Your task to perform on an android device: change the clock display to show seconds Image 0: 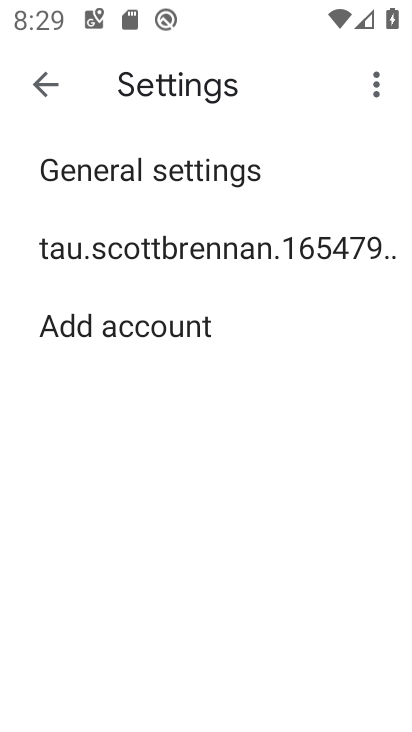
Step 0: press home button
Your task to perform on an android device: change the clock display to show seconds Image 1: 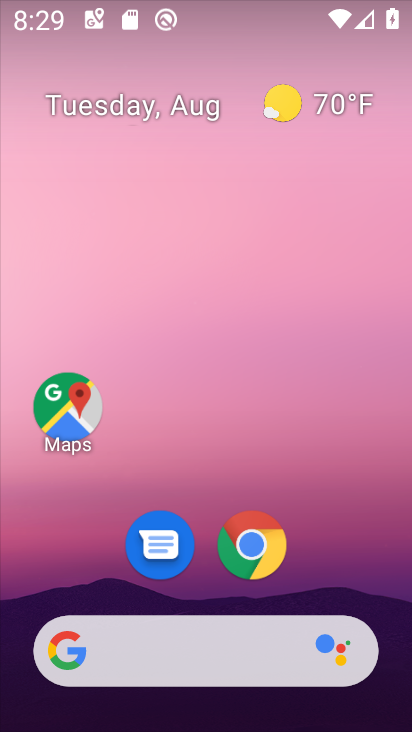
Step 1: drag from (250, 623) to (334, 158)
Your task to perform on an android device: change the clock display to show seconds Image 2: 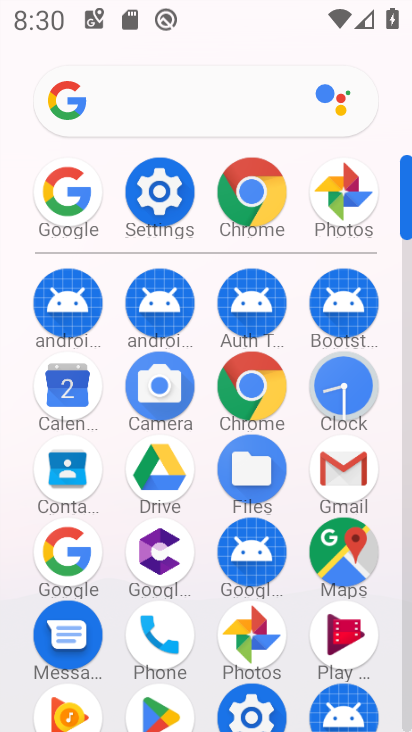
Step 2: click (353, 406)
Your task to perform on an android device: change the clock display to show seconds Image 3: 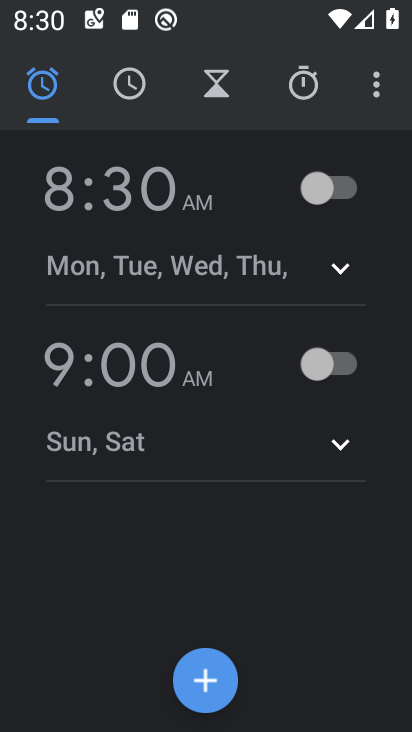
Step 3: click (382, 86)
Your task to perform on an android device: change the clock display to show seconds Image 4: 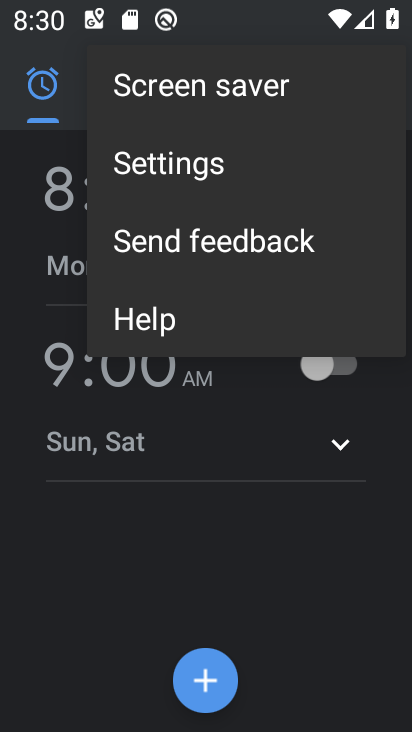
Step 4: click (185, 175)
Your task to perform on an android device: change the clock display to show seconds Image 5: 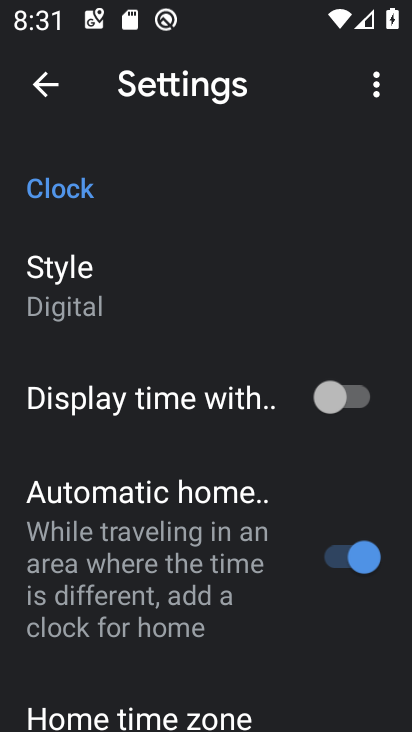
Step 5: drag from (238, 606) to (255, 281)
Your task to perform on an android device: change the clock display to show seconds Image 6: 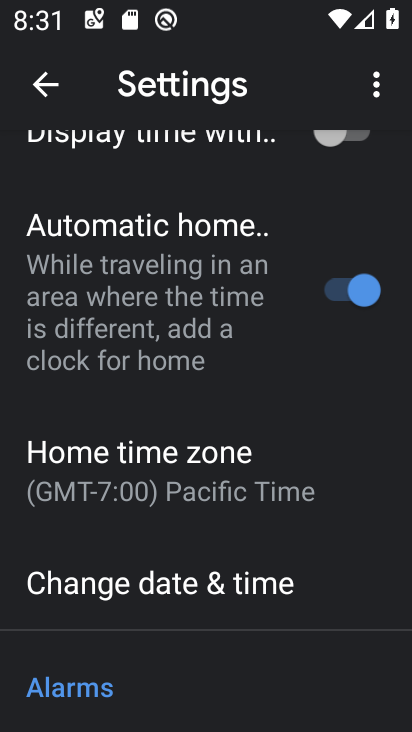
Step 6: click (290, 151)
Your task to perform on an android device: change the clock display to show seconds Image 7: 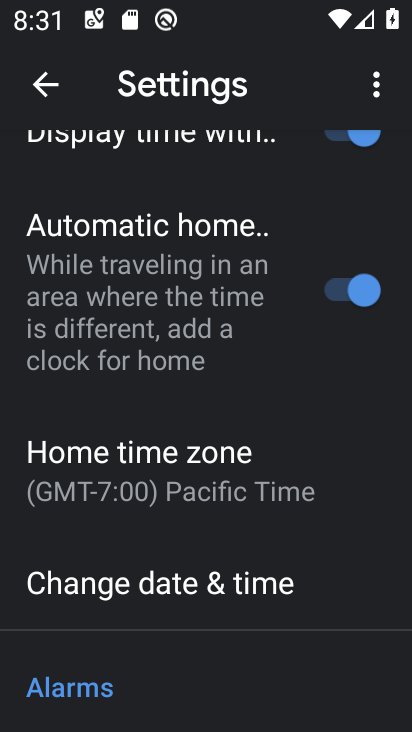
Step 7: task complete